Your task to perform on an android device: change alarm snooze length Image 0: 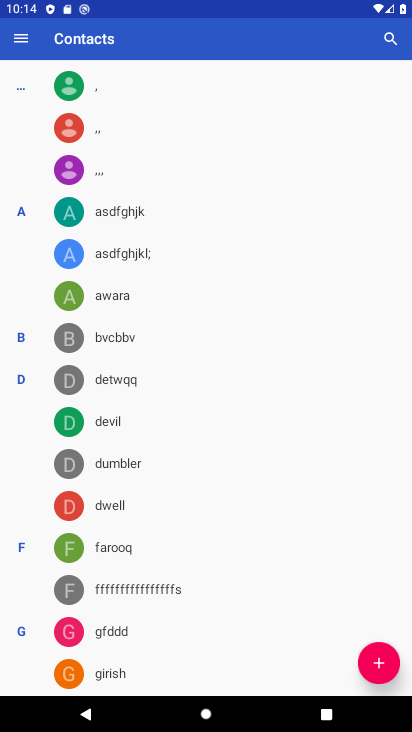
Step 0: press home button
Your task to perform on an android device: change alarm snooze length Image 1: 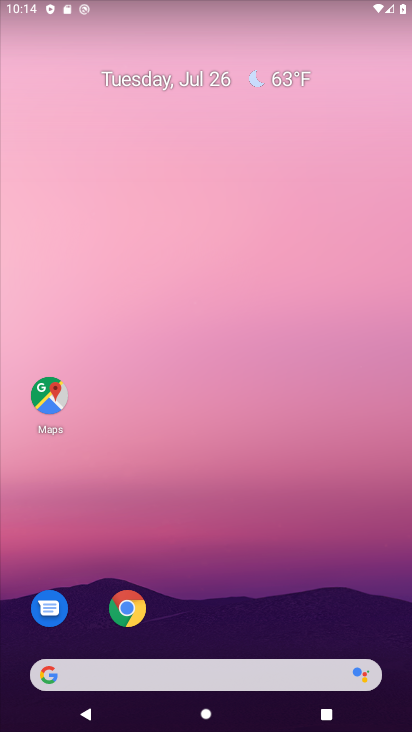
Step 1: press home button
Your task to perform on an android device: change alarm snooze length Image 2: 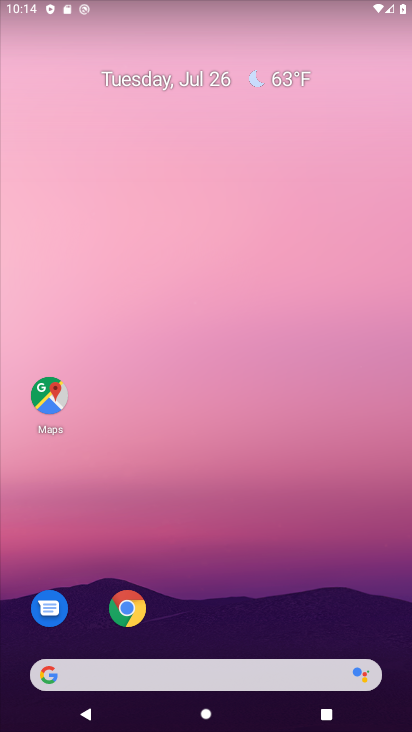
Step 2: drag from (253, 546) to (241, 79)
Your task to perform on an android device: change alarm snooze length Image 3: 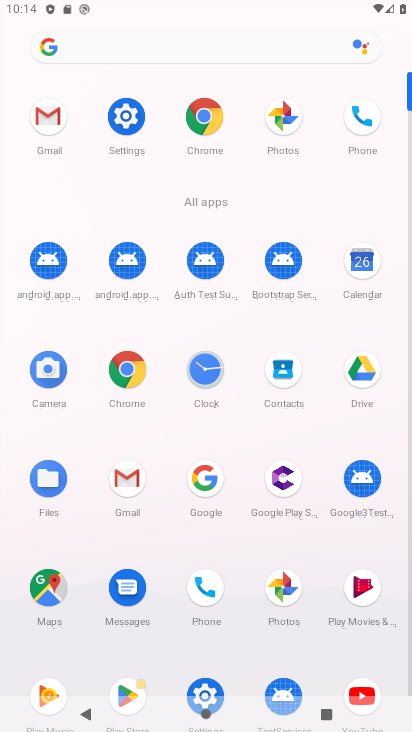
Step 3: click (200, 370)
Your task to perform on an android device: change alarm snooze length Image 4: 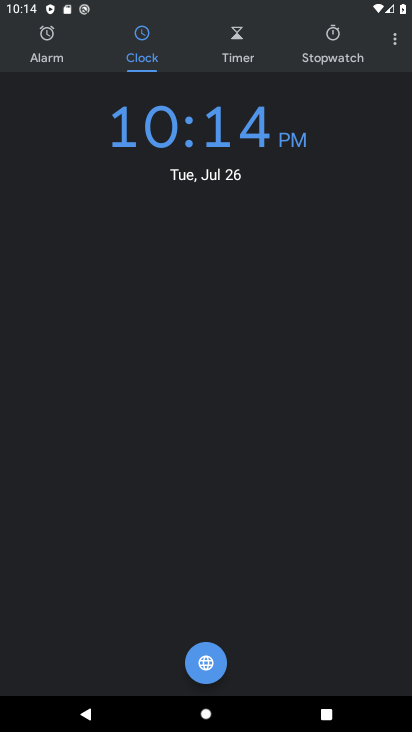
Step 4: click (391, 42)
Your task to perform on an android device: change alarm snooze length Image 5: 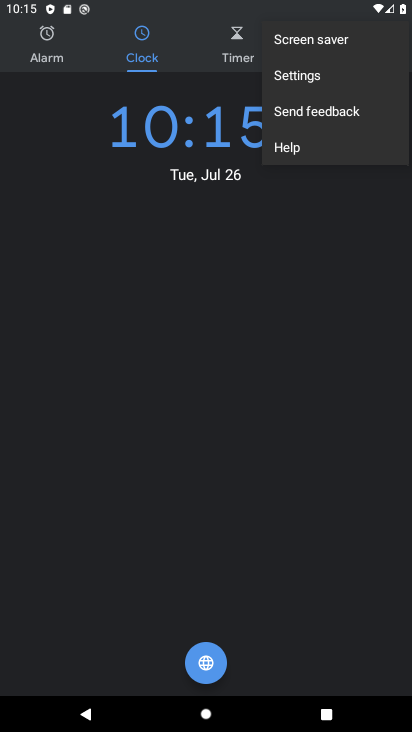
Step 5: click (323, 80)
Your task to perform on an android device: change alarm snooze length Image 6: 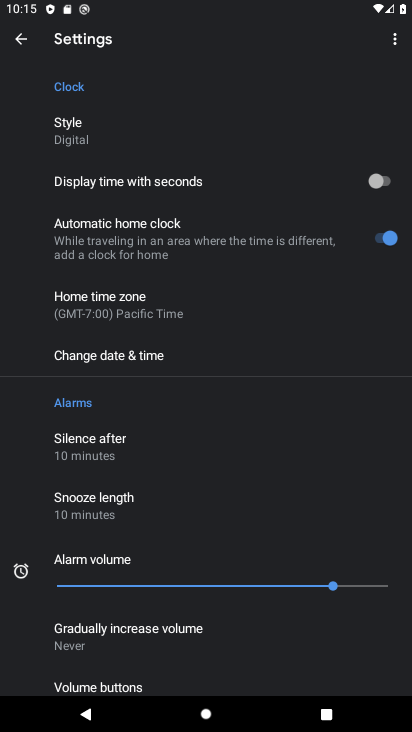
Step 6: click (120, 505)
Your task to perform on an android device: change alarm snooze length Image 7: 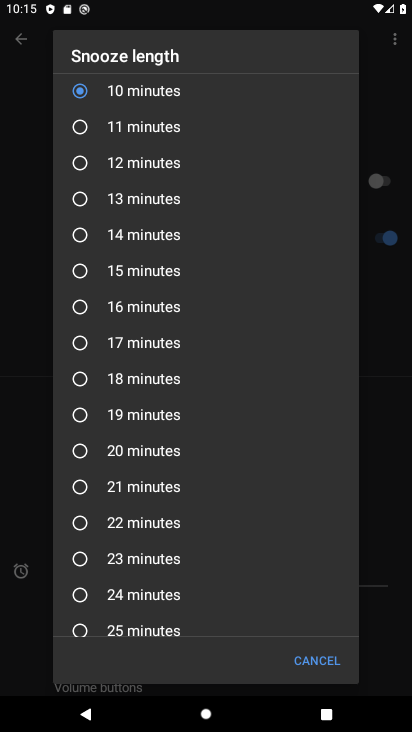
Step 7: click (82, 273)
Your task to perform on an android device: change alarm snooze length Image 8: 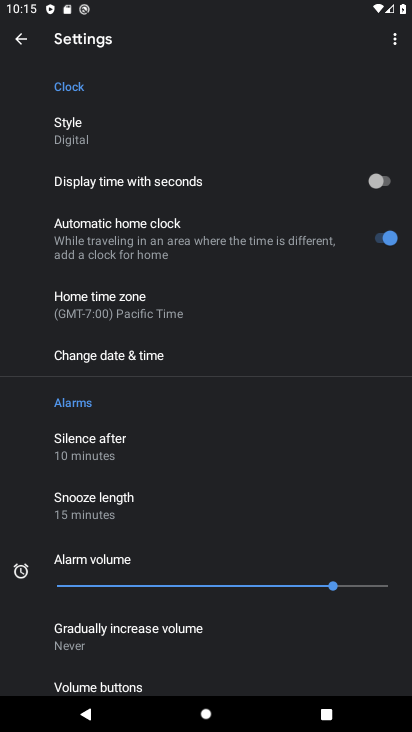
Step 8: task complete